Your task to perform on an android device: find snoozed emails in the gmail app Image 0: 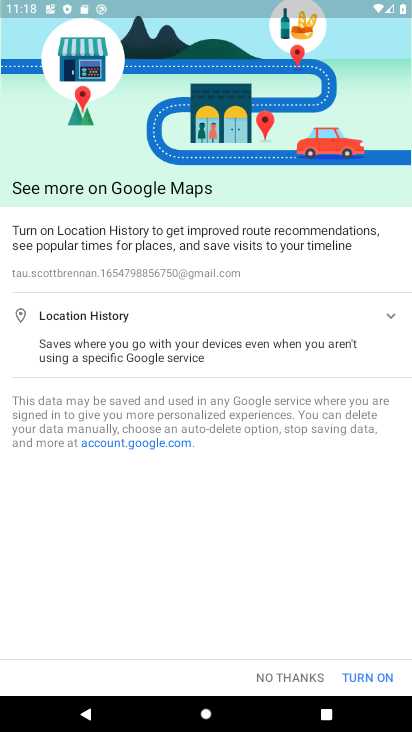
Step 0: press home button
Your task to perform on an android device: find snoozed emails in the gmail app Image 1: 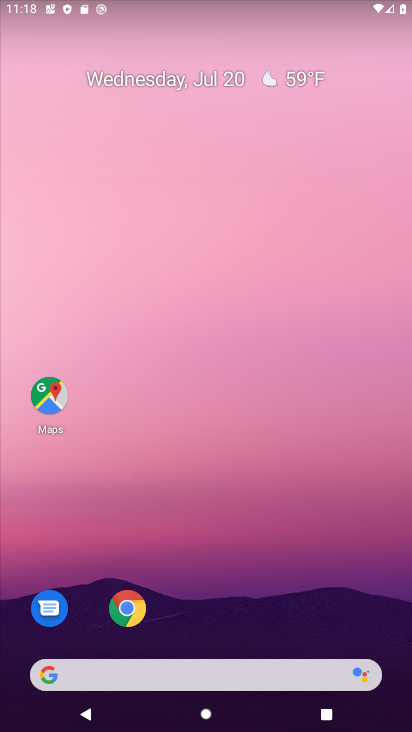
Step 1: drag from (363, 604) to (370, 94)
Your task to perform on an android device: find snoozed emails in the gmail app Image 2: 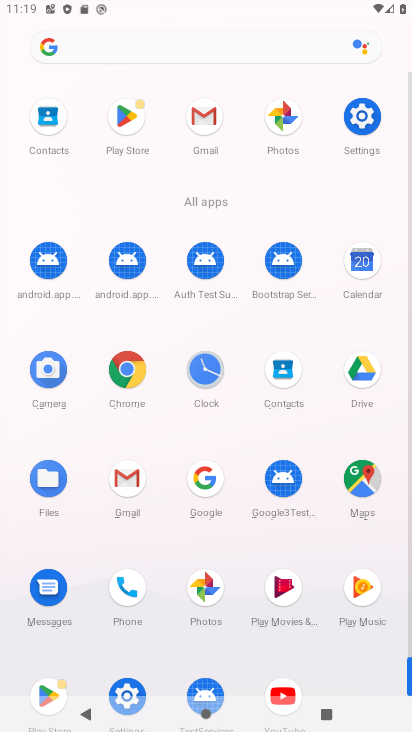
Step 2: click (137, 478)
Your task to perform on an android device: find snoozed emails in the gmail app Image 3: 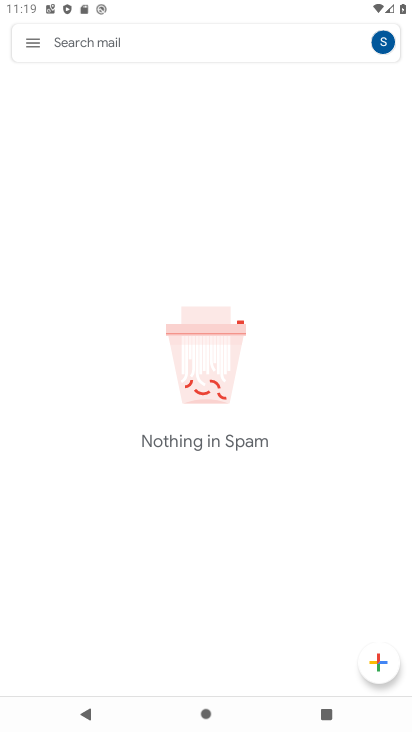
Step 3: click (33, 47)
Your task to perform on an android device: find snoozed emails in the gmail app Image 4: 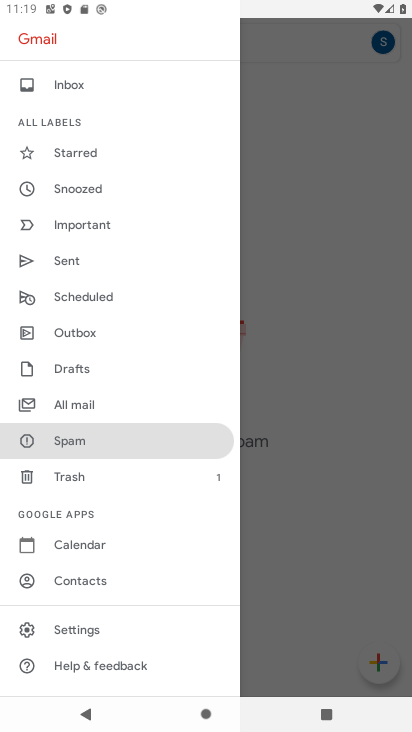
Step 4: drag from (193, 215) to (172, 373)
Your task to perform on an android device: find snoozed emails in the gmail app Image 5: 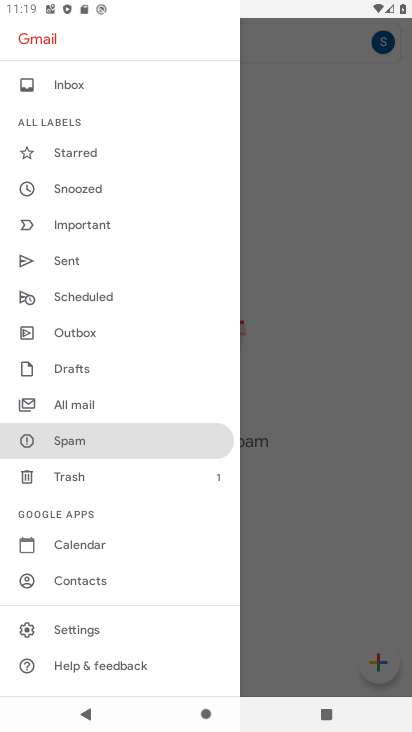
Step 5: drag from (163, 517) to (187, 288)
Your task to perform on an android device: find snoozed emails in the gmail app Image 6: 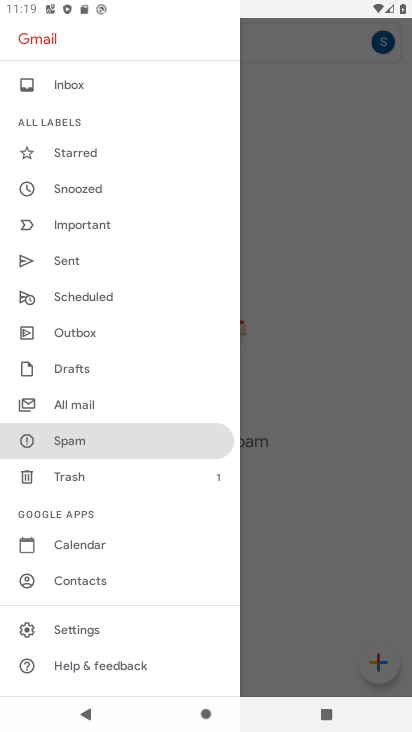
Step 6: click (90, 187)
Your task to perform on an android device: find snoozed emails in the gmail app Image 7: 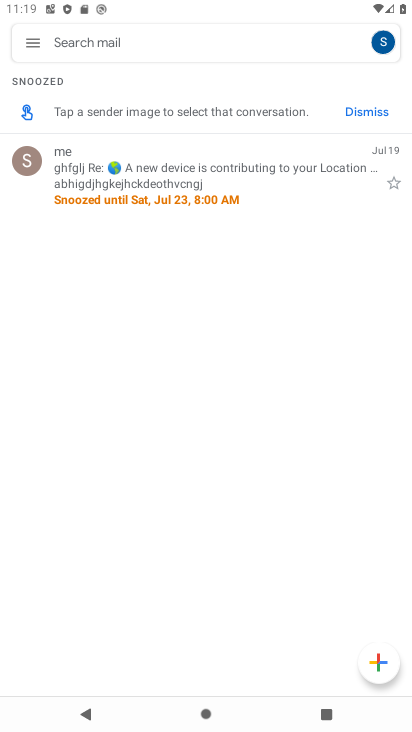
Step 7: task complete